Your task to perform on an android device: Go to Android settings Image 0: 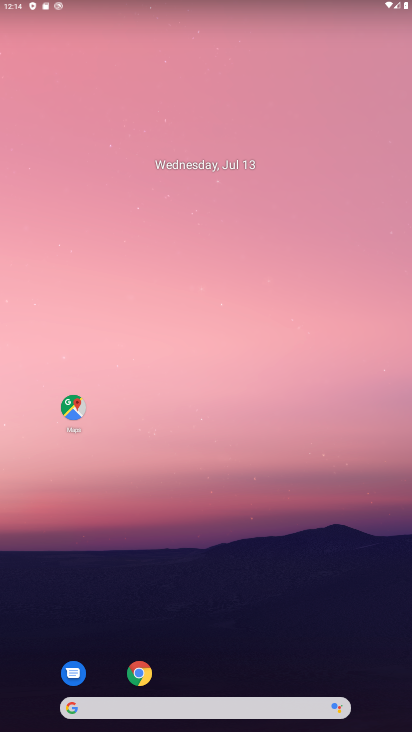
Step 0: drag from (271, 651) to (270, 108)
Your task to perform on an android device: Go to Android settings Image 1: 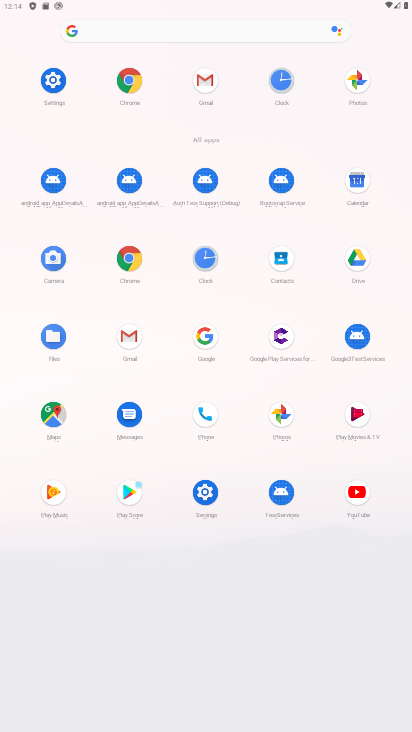
Step 1: click (43, 91)
Your task to perform on an android device: Go to Android settings Image 2: 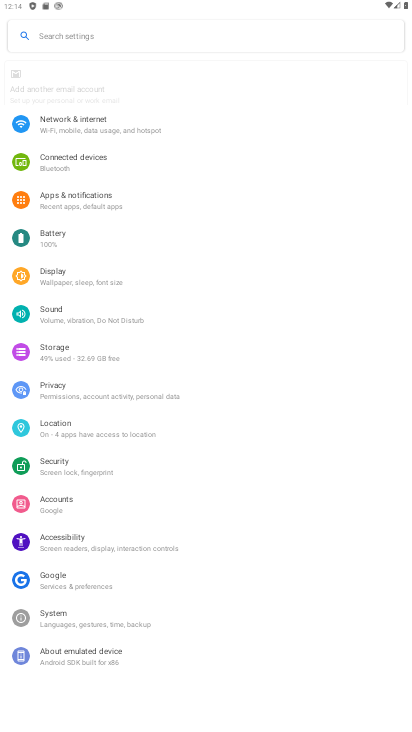
Step 2: drag from (173, 620) to (178, 456)
Your task to perform on an android device: Go to Android settings Image 3: 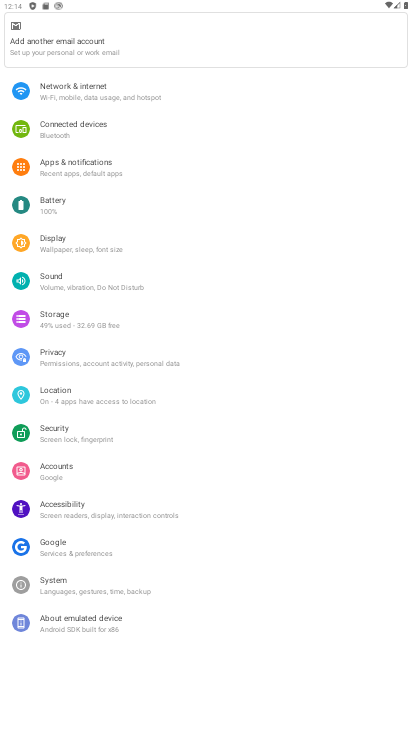
Step 3: click (143, 590)
Your task to perform on an android device: Go to Android settings Image 4: 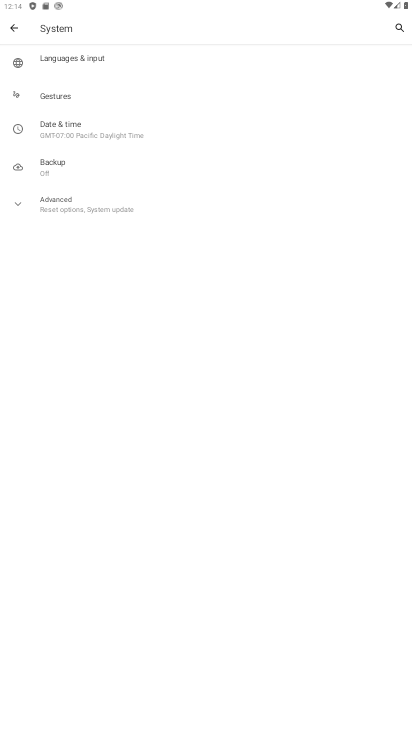
Step 4: task complete